Your task to perform on an android device: turn on showing notifications on the lock screen Image 0: 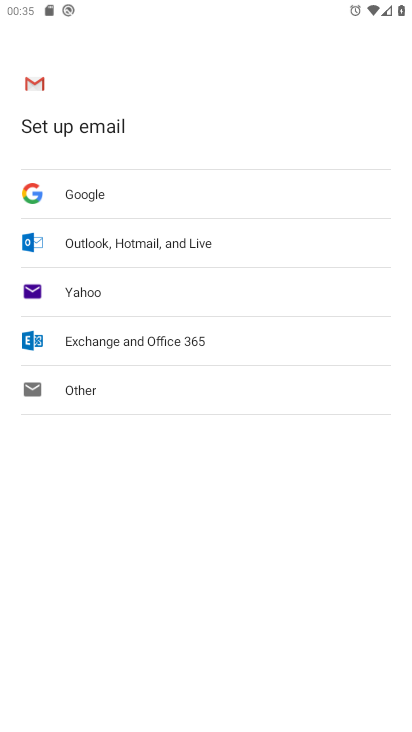
Step 0: press home button
Your task to perform on an android device: turn on showing notifications on the lock screen Image 1: 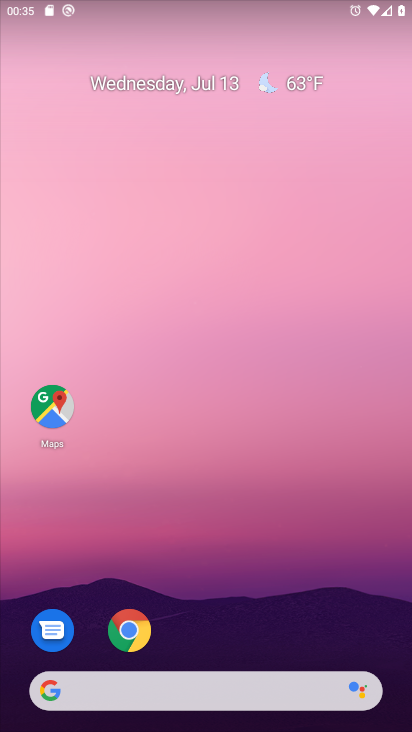
Step 1: click (209, 682)
Your task to perform on an android device: turn on showing notifications on the lock screen Image 2: 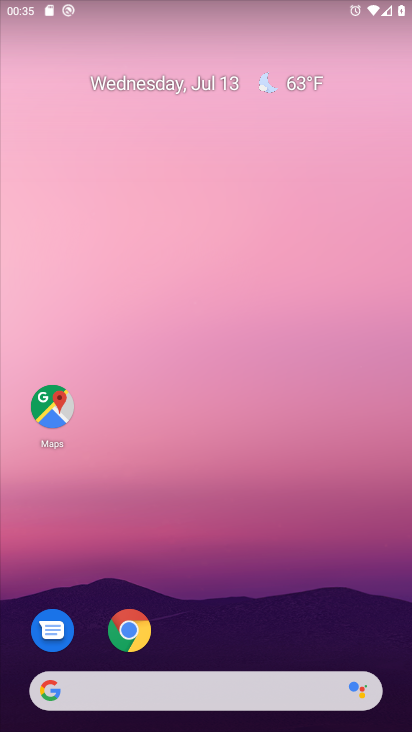
Step 2: drag from (209, 682) to (217, 312)
Your task to perform on an android device: turn on showing notifications on the lock screen Image 3: 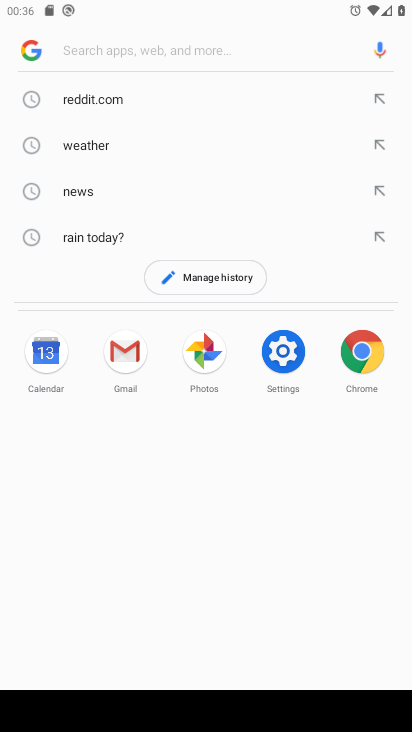
Step 3: press home button
Your task to perform on an android device: turn on showing notifications on the lock screen Image 4: 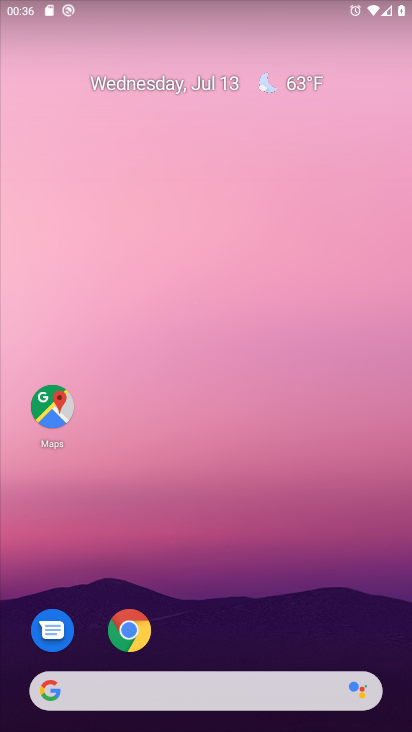
Step 4: drag from (231, 694) to (253, 243)
Your task to perform on an android device: turn on showing notifications on the lock screen Image 5: 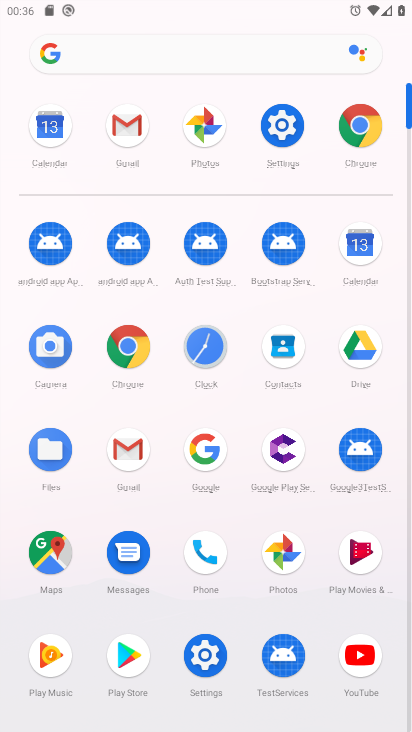
Step 5: click (272, 124)
Your task to perform on an android device: turn on showing notifications on the lock screen Image 6: 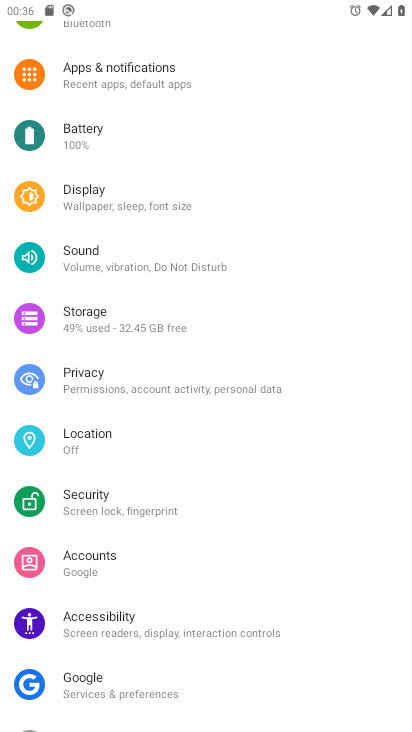
Step 6: click (133, 85)
Your task to perform on an android device: turn on showing notifications on the lock screen Image 7: 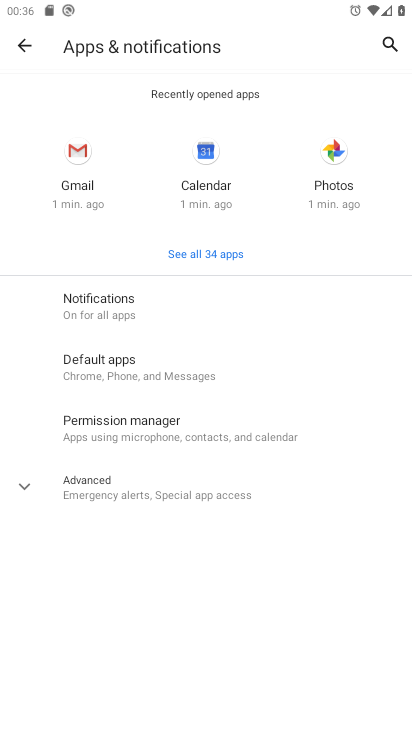
Step 7: click (97, 316)
Your task to perform on an android device: turn on showing notifications on the lock screen Image 8: 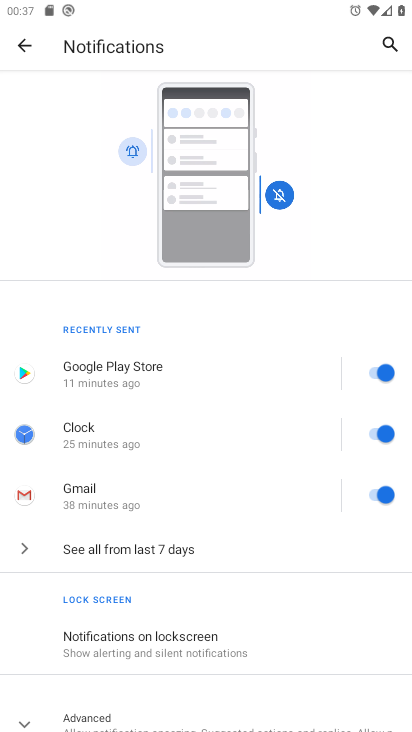
Step 8: click (129, 638)
Your task to perform on an android device: turn on showing notifications on the lock screen Image 9: 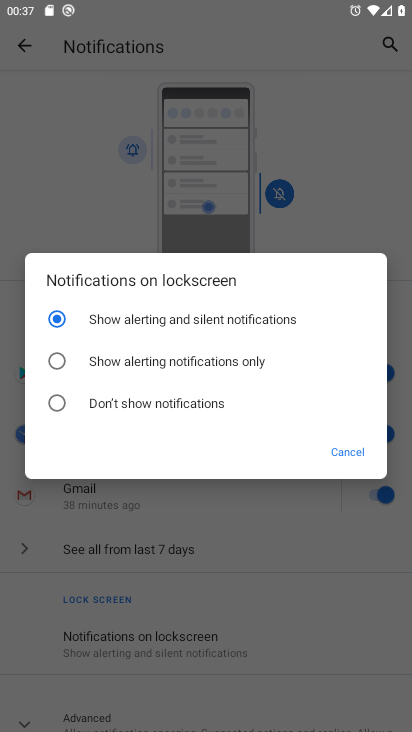
Step 9: click (189, 321)
Your task to perform on an android device: turn on showing notifications on the lock screen Image 10: 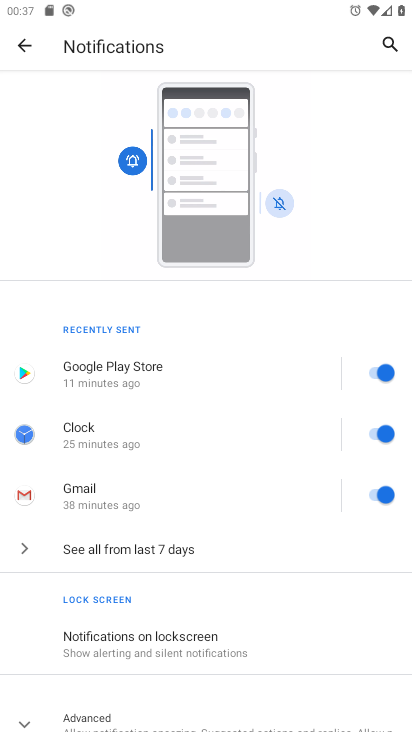
Step 10: task complete